Your task to perform on an android device: Search for vegetarian restaurants on Maps Image 0: 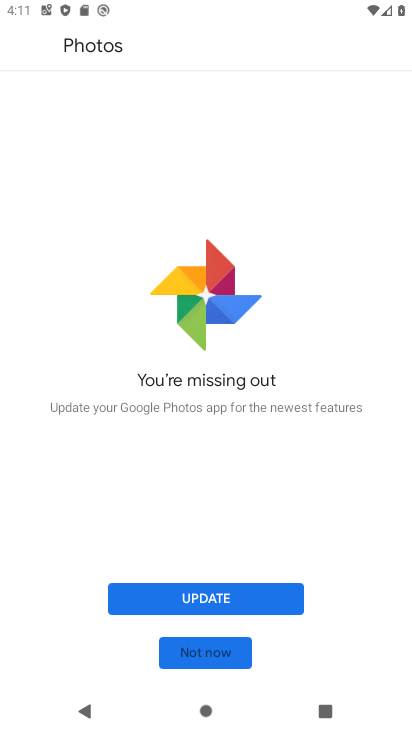
Step 0: press home button
Your task to perform on an android device: Search for vegetarian restaurants on Maps Image 1: 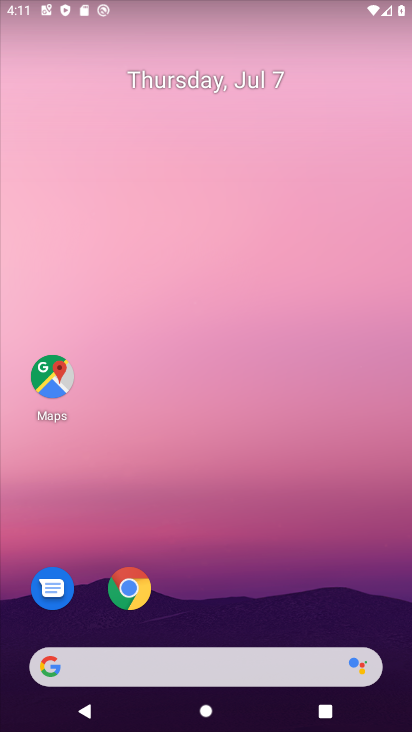
Step 1: drag from (285, 673) to (323, 57)
Your task to perform on an android device: Search for vegetarian restaurants on Maps Image 2: 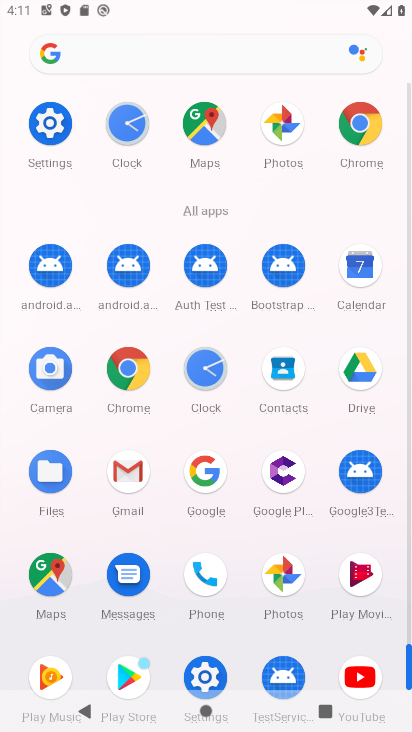
Step 2: click (59, 582)
Your task to perform on an android device: Search for vegetarian restaurants on Maps Image 3: 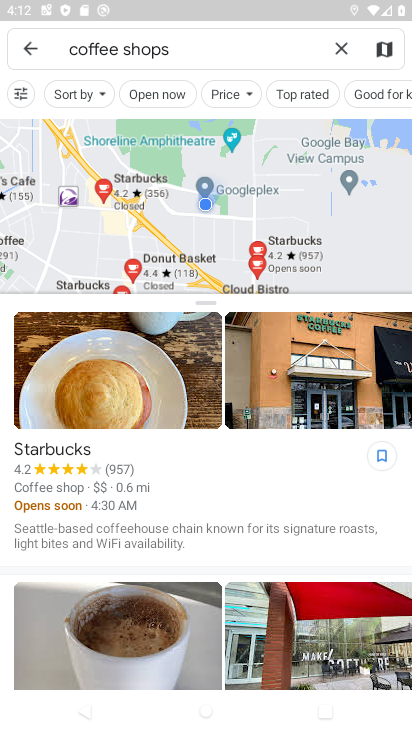
Step 3: click (333, 44)
Your task to perform on an android device: Search for vegetarian restaurants on Maps Image 4: 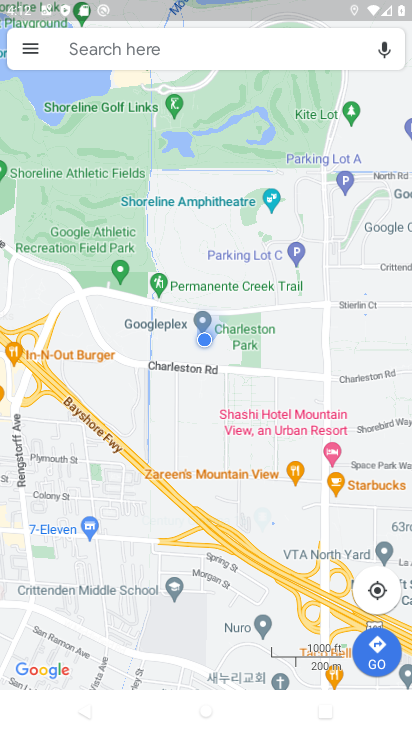
Step 4: click (201, 50)
Your task to perform on an android device: Search for vegetarian restaurants on Maps Image 5: 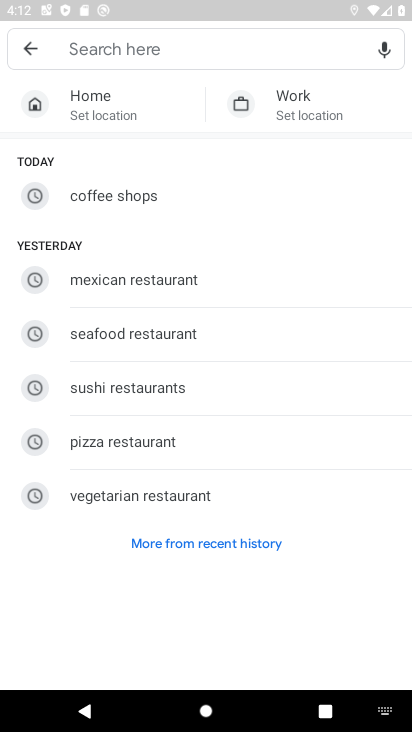
Step 5: type "vegetari"
Your task to perform on an android device: Search for vegetarian restaurants on Maps Image 6: 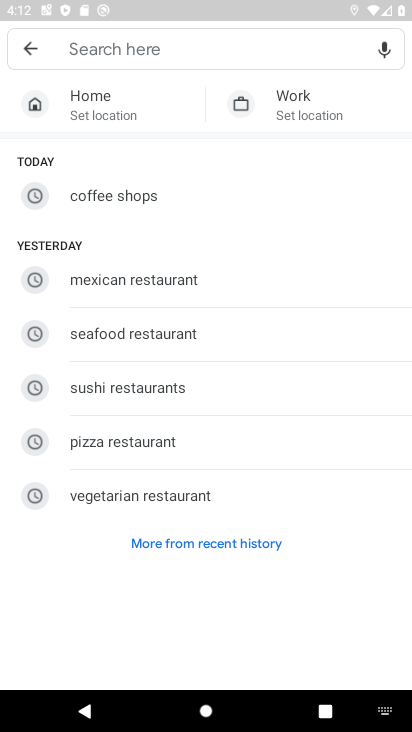
Step 6: click (177, 488)
Your task to perform on an android device: Search for vegetarian restaurants on Maps Image 7: 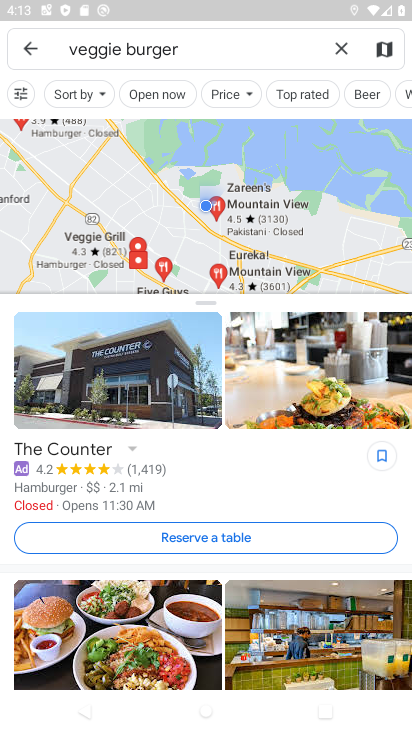
Step 7: press back button
Your task to perform on an android device: Search for vegetarian restaurants on Maps Image 8: 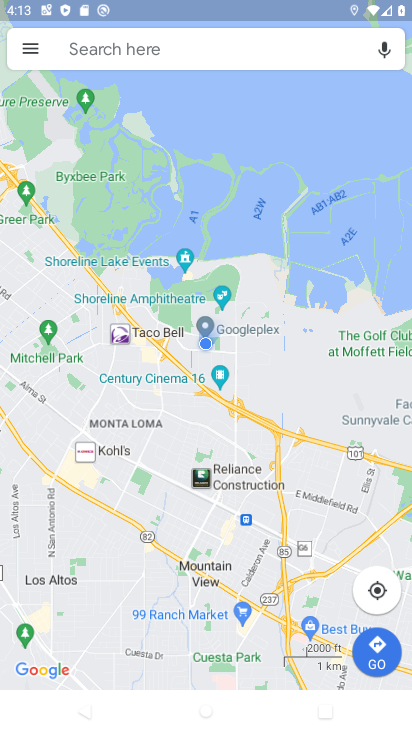
Step 8: click (185, 55)
Your task to perform on an android device: Search for vegetarian restaurants on Maps Image 9: 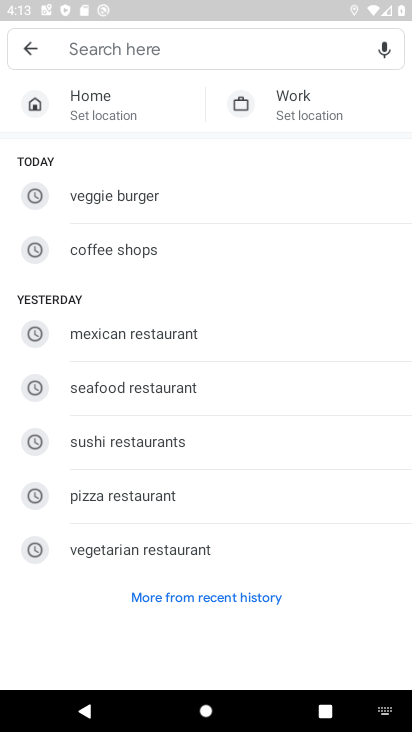
Step 9: click (166, 549)
Your task to perform on an android device: Search for vegetarian restaurants on Maps Image 10: 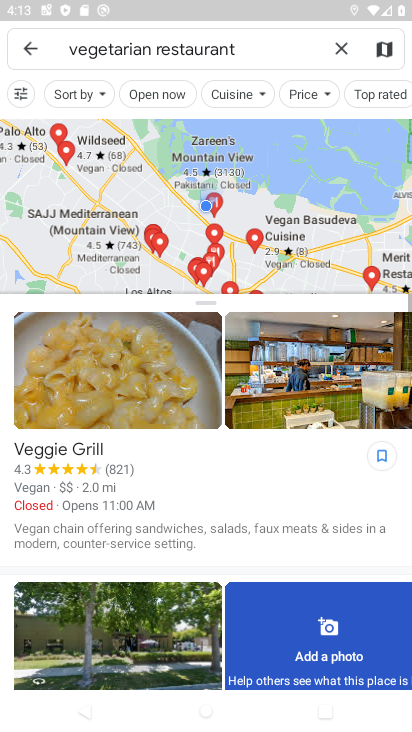
Step 10: task complete